Your task to perform on an android device: Open Google Image 0: 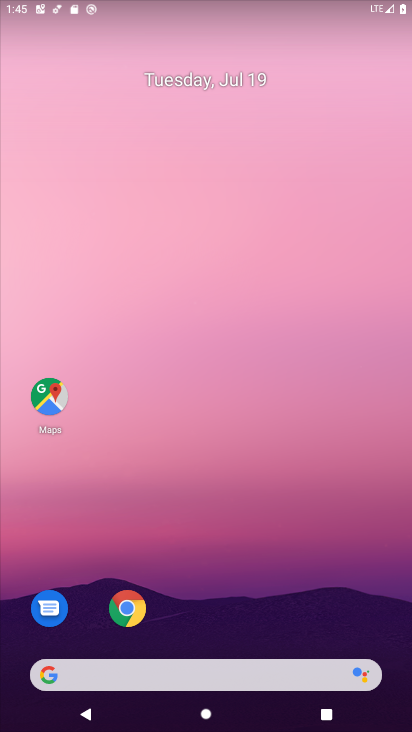
Step 0: drag from (222, 612) to (249, 181)
Your task to perform on an android device: Open Google Image 1: 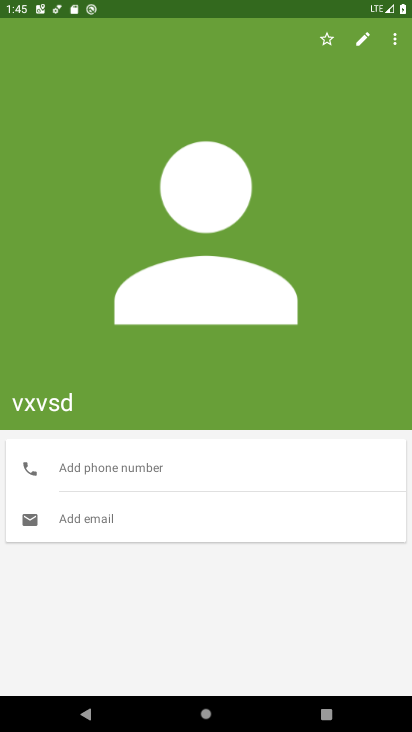
Step 1: press home button
Your task to perform on an android device: Open Google Image 2: 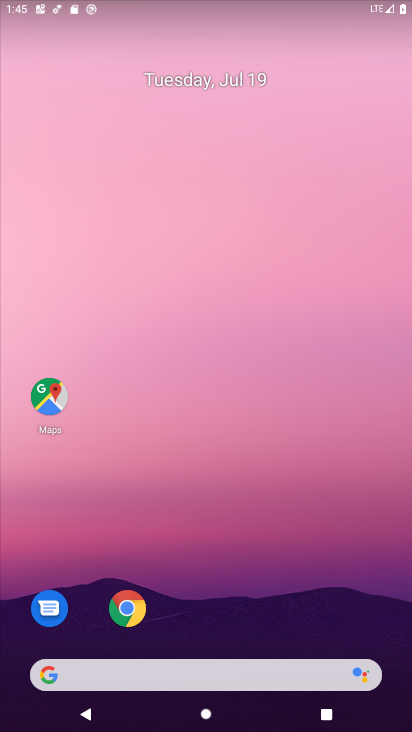
Step 2: drag from (214, 634) to (259, 221)
Your task to perform on an android device: Open Google Image 3: 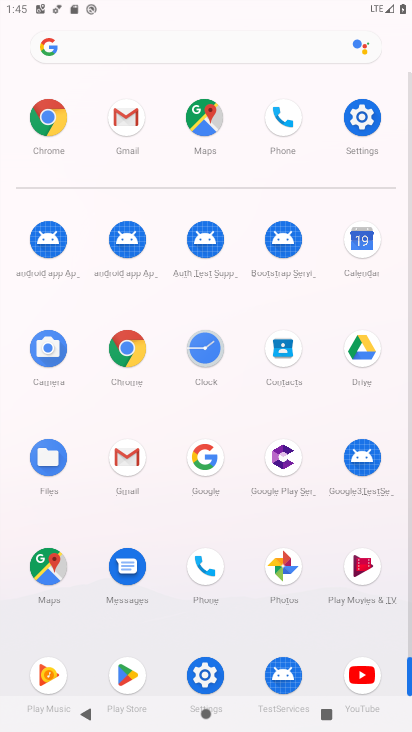
Step 3: click (215, 456)
Your task to perform on an android device: Open Google Image 4: 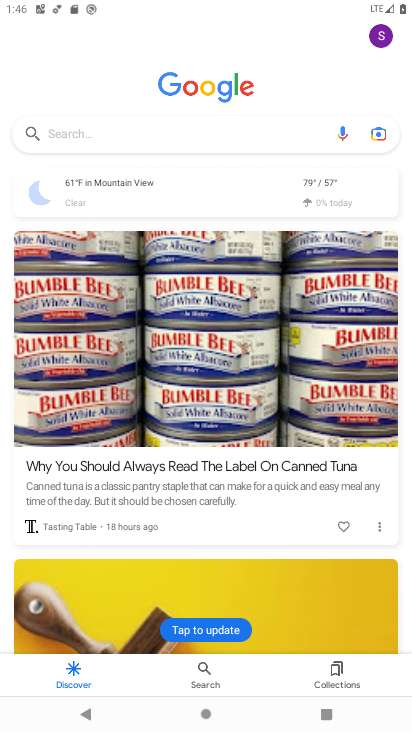
Step 4: task complete